Your task to perform on an android device: Is it going to rain tomorrow? Image 0: 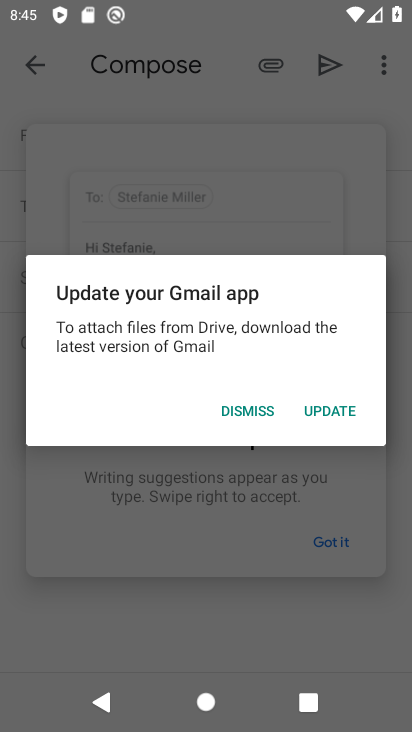
Step 0: press home button
Your task to perform on an android device: Is it going to rain tomorrow? Image 1: 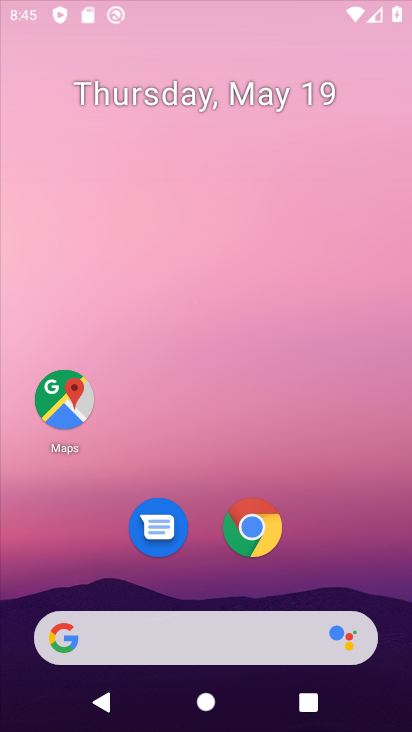
Step 1: drag from (226, 614) to (267, 155)
Your task to perform on an android device: Is it going to rain tomorrow? Image 2: 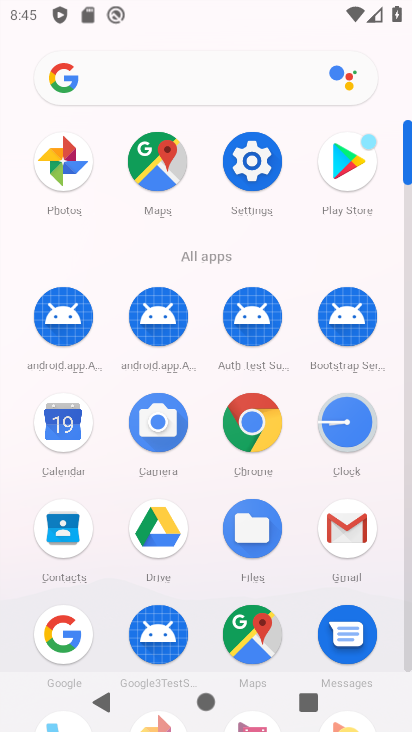
Step 2: click (169, 76)
Your task to perform on an android device: Is it going to rain tomorrow? Image 3: 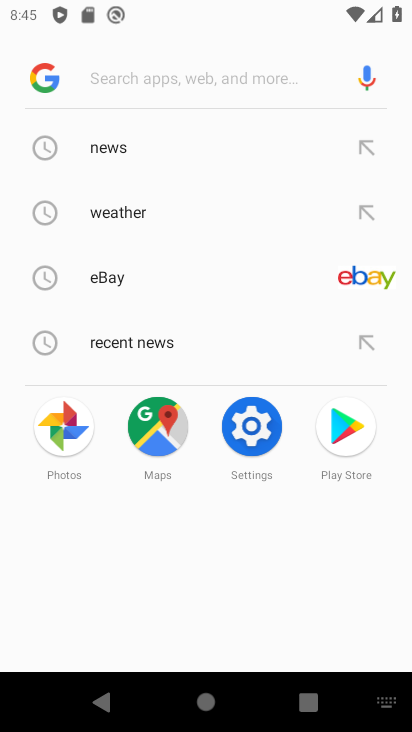
Step 3: type "rain tomorrow"
Your task to perform on an android device: Is it going to rain tomorrow? Image 4: 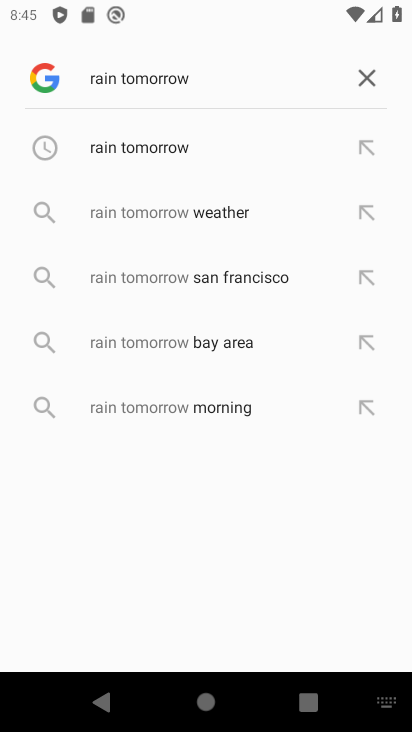
Step 4: click (128, 137)
Your task to perform on an android device: Is it going to rain tomorrow? Image 5: 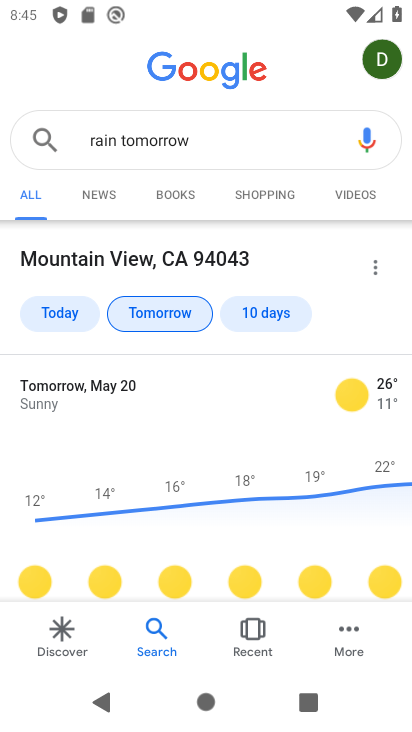
Step 5: task complete